Your task to perform on an android device: check android version Image 0: 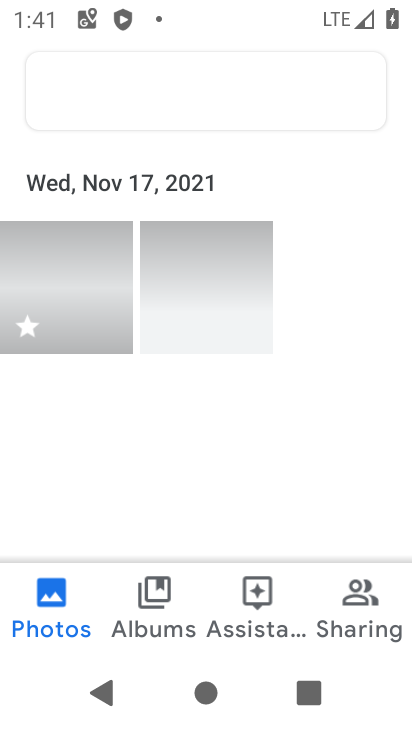
Step 0: drag from (376, 550) to (372, 412)
Your task to perform on an android device: check android version Image 1: 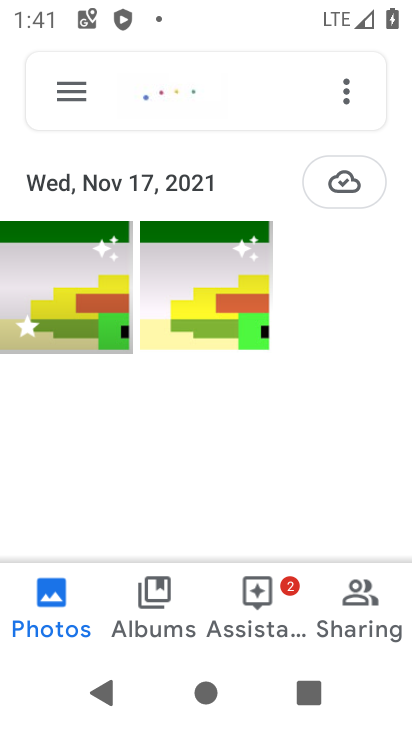
Step 1: press home button
Your task to perform on an android device: check android version Image 2: 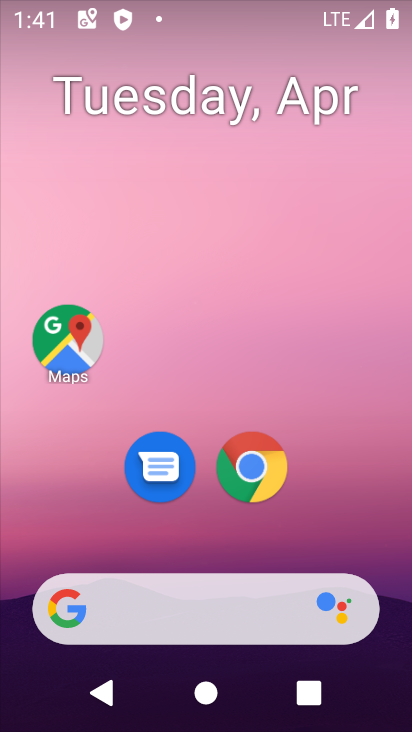
Step 2: drag from (374, 541) to (364, 141)
Your task to perform on an android device: check android version Image 3: 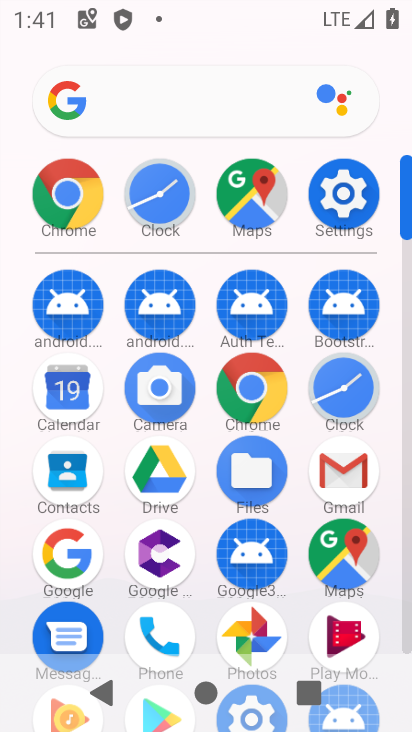
Step 3: click (341, 201)
Your task to perform on an android device: check android version Image 4: 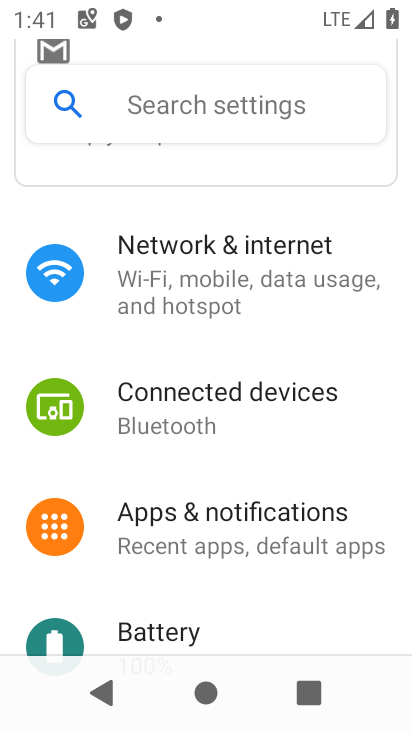
Step 4: drag from (370, 617) to (371, 384)
Your task to perform on an android device: check android version Image 5: 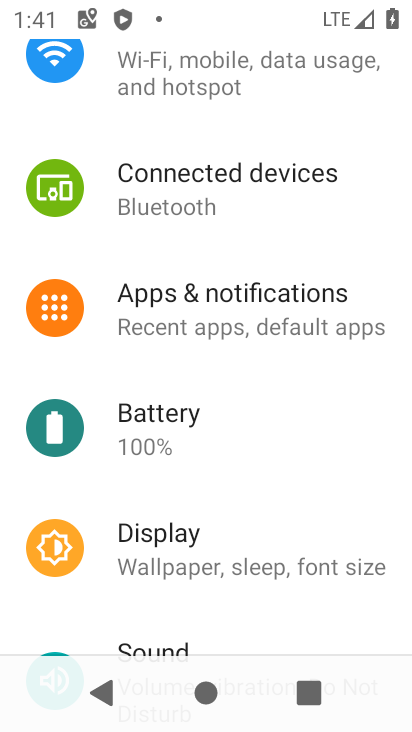
Step 5: drag from (366, 607) to (366, 373)
Your task to perform on an android device: check android version Image 6: 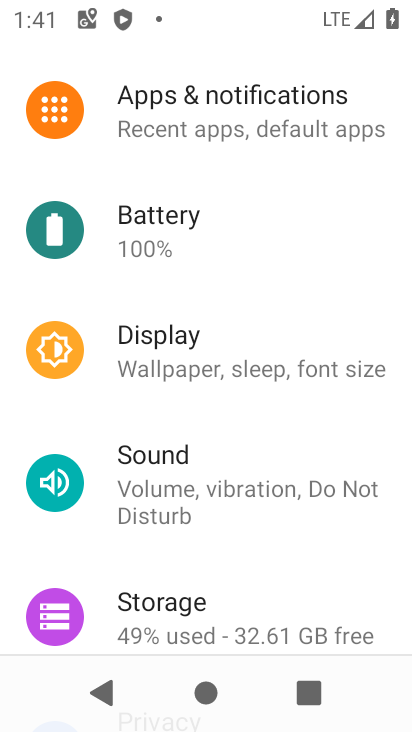
Step 6: drag from (372, 550) to (390, 318)
Your task to perform on an android device: check android version Image 7: 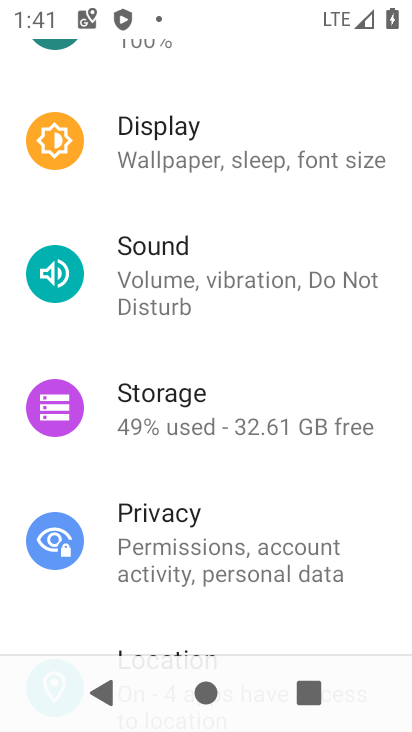
Step 7: drag from (367, 572) to (371, 337)
Your task to perform on an android device: check android version Image 8: 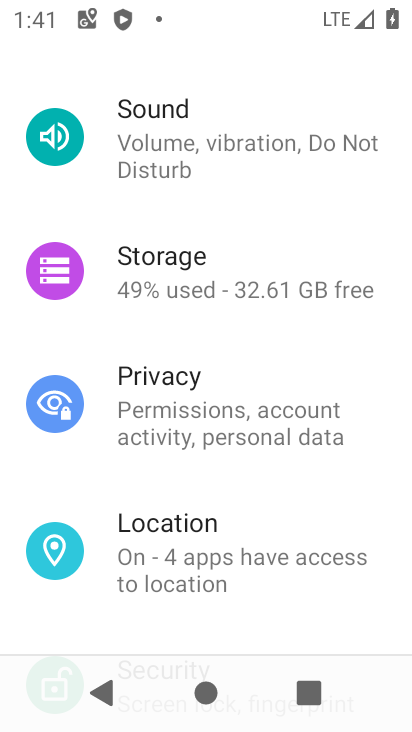
Step 8: drag from (376, 620) to (358, 395)
Your task to perform on an android device: check android version Image 9: 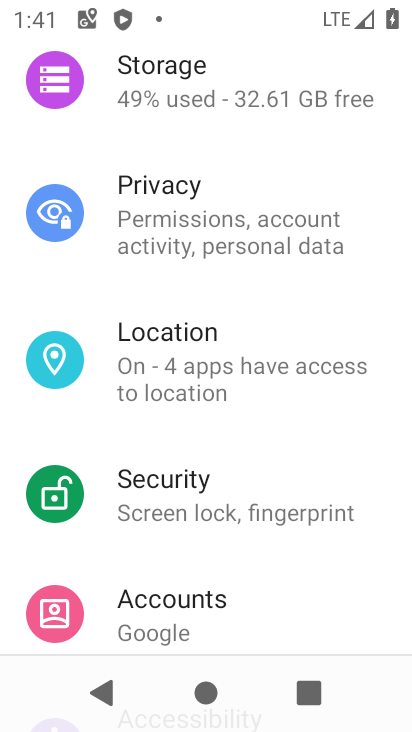
Step 9: drag from (362, 604) to (369, 349)
Your task to perform on an android device: check android version Image 10: 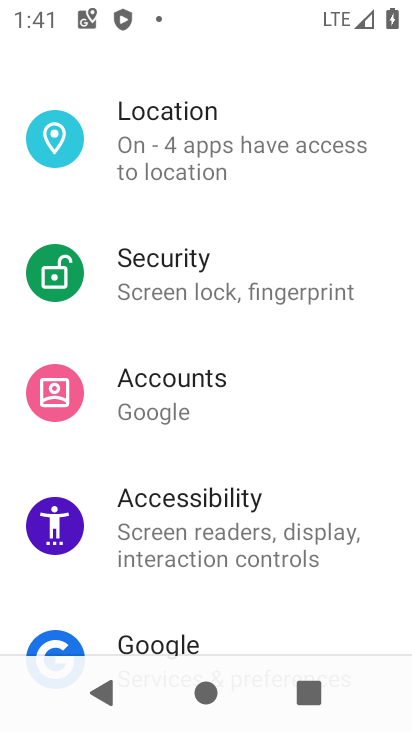
Step 10: drag from (351, 596) to (353, 320)
Your task to perform on an android device: check android version Image 11: 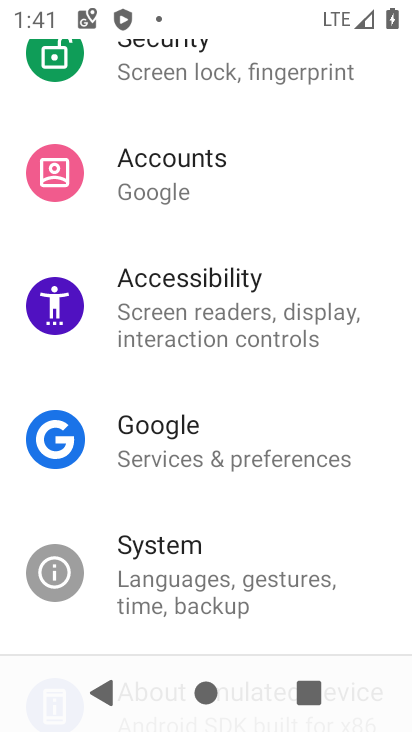
Step 11: drag from (356, 596) to (364, 339)
Your task to perform on an android device: check android version Image 12: 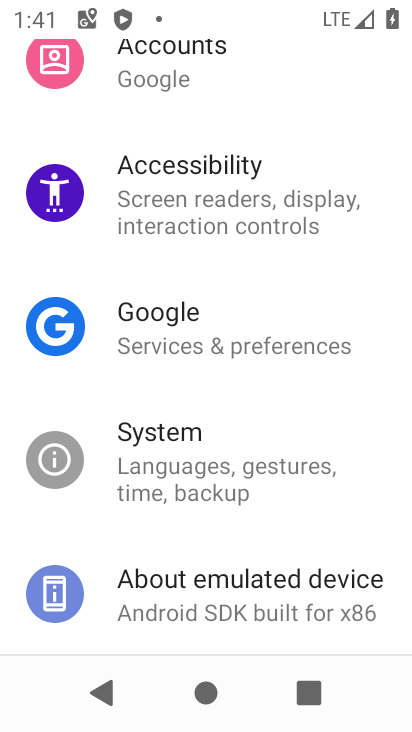
Step 12: click (216, 471)
Your task to perform on an android device: check android version Image 13: 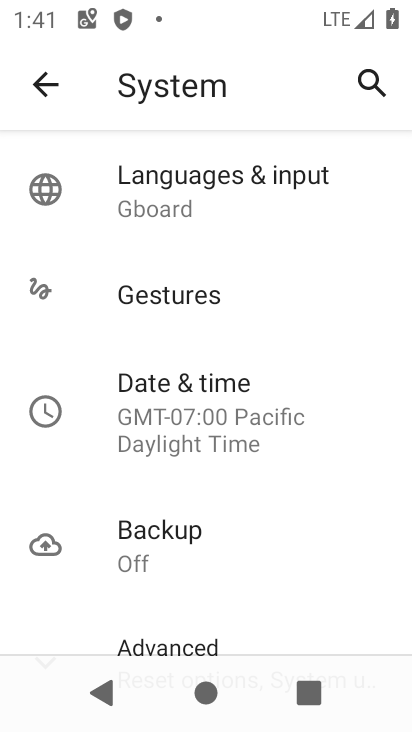
Step 13: drag from (302, 560) to (322, 269)
Your task to perform on an android device: check android version Image 14: 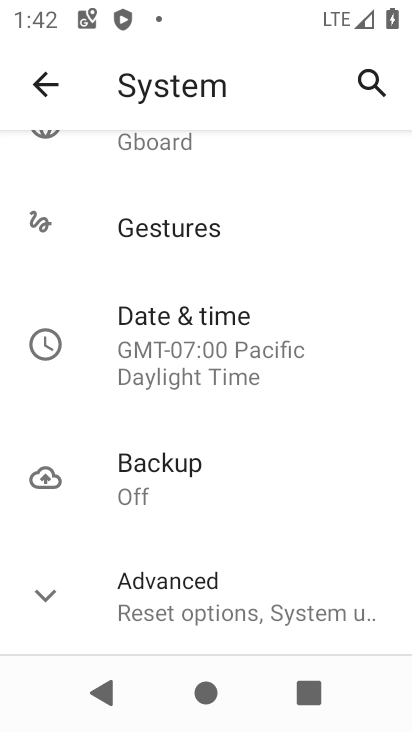
Step 14: click (181, 598)
Your task to perform on an android device: check android version Image 15: 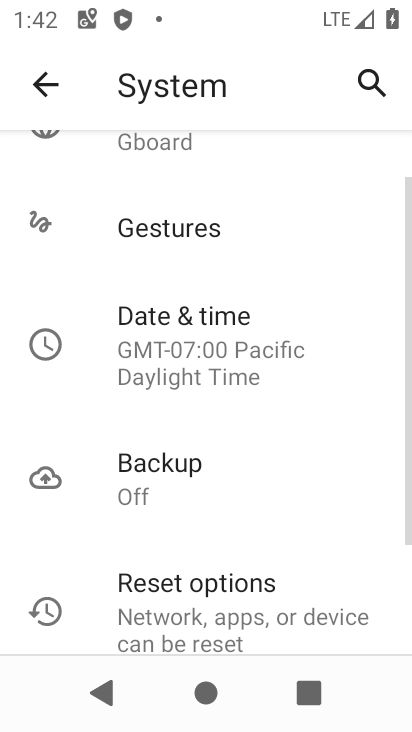
Step 15: drag from (337, 500) to (347, 230)
Your task to perform on an android device: check android version Image 16: 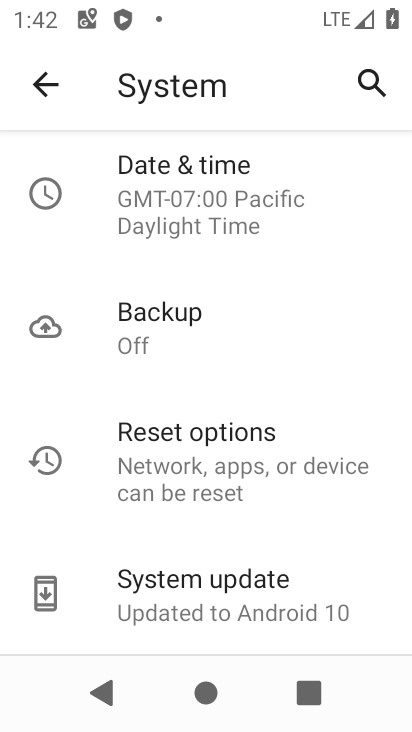
Step 16: click (212, 607)
Your task to perform on an android device: check android version Image 17: 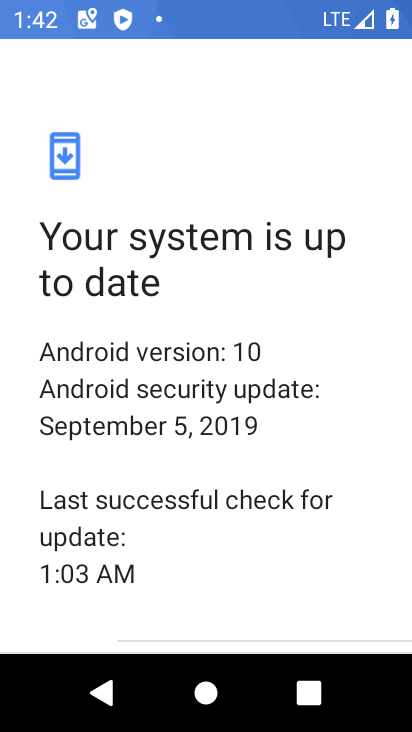
Step 17: task complete